Your task to perform on an android device: toggle wifi Image 0: 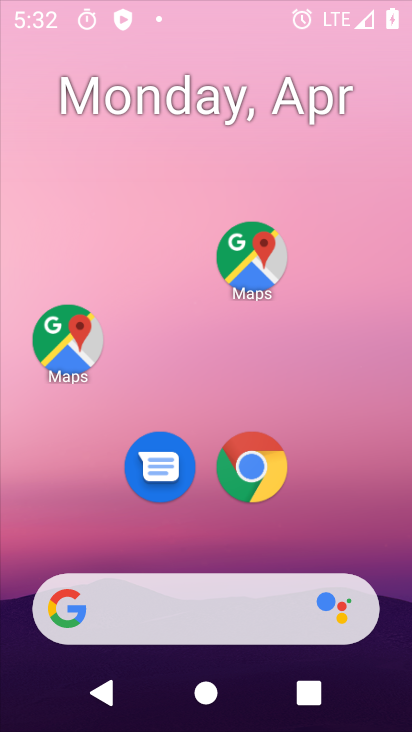
Step 0: drag from (309, 142) to (271, 6)
Your task to perform on an android device: toggle wifi Image 1: 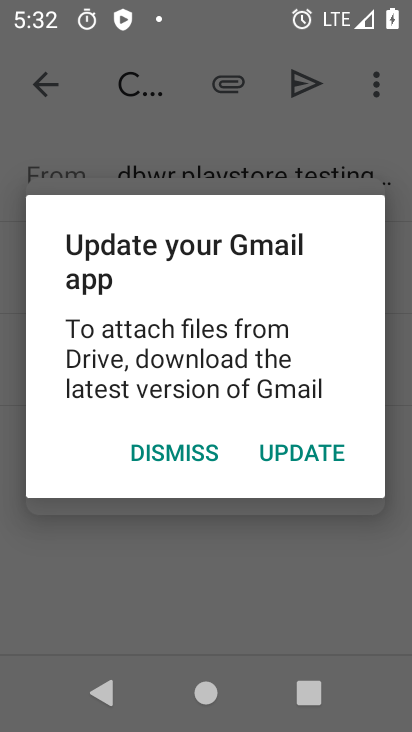
Step 1: press home button
Your task to perform on an android device: toggle wifi Image 2: 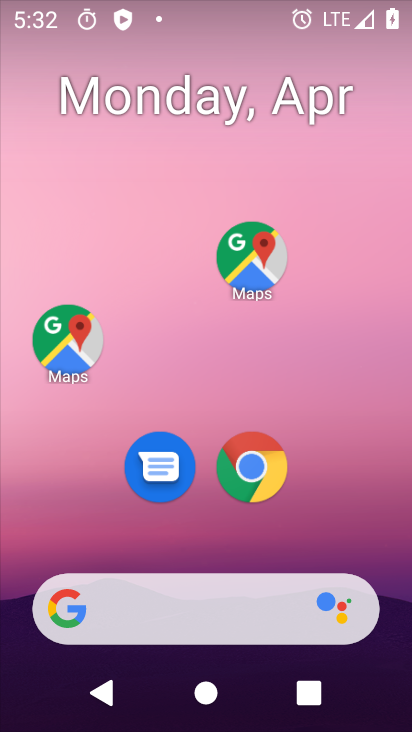
Step 2: drag from (321, 574) to (332, 15)
Your task to perform on an android device: toggle wifi Image 3: 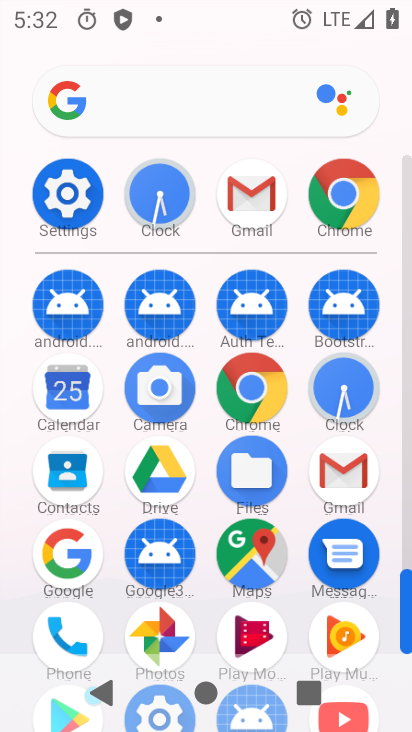
Step 3: click (69, 195)
Your task to perform on an android device: toggle wifi Image 4: 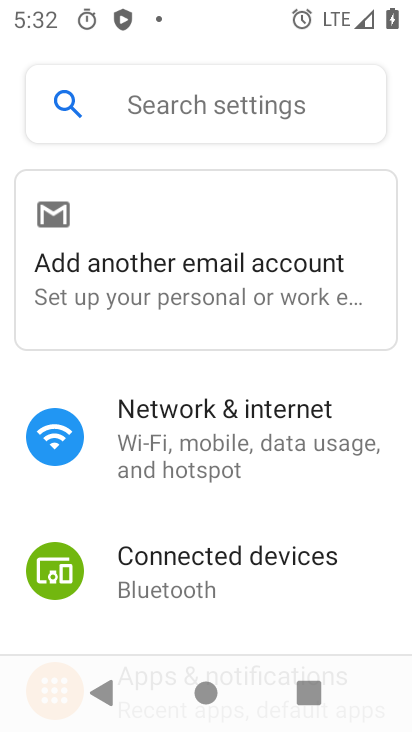
Step 4: drag from (295, 623) to (267, 402)
Your task to perform on an android device: toggle wifi Image 5: 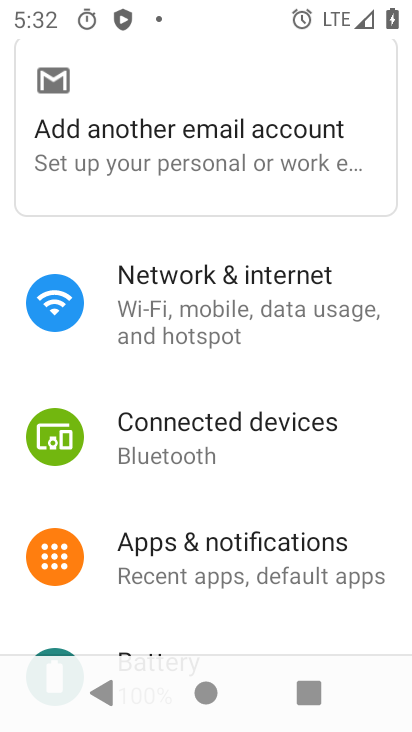
Step 5: click (263, 301)
Your task to perform on an android device: toggle wifi Image 6: 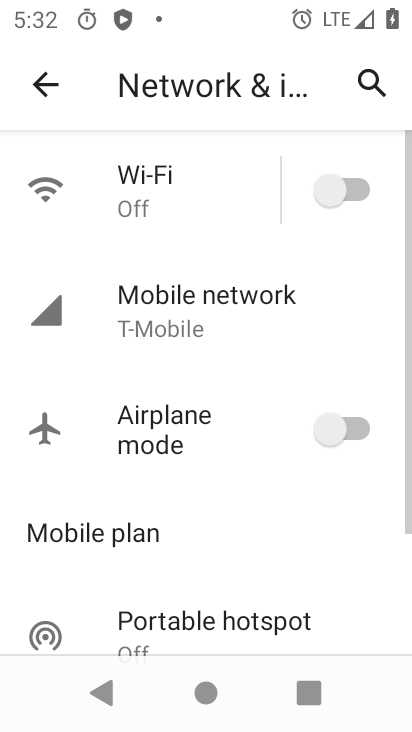
Step 6: click (341, 192)
Your task to perform on an android device: toggle wifi Image 7: 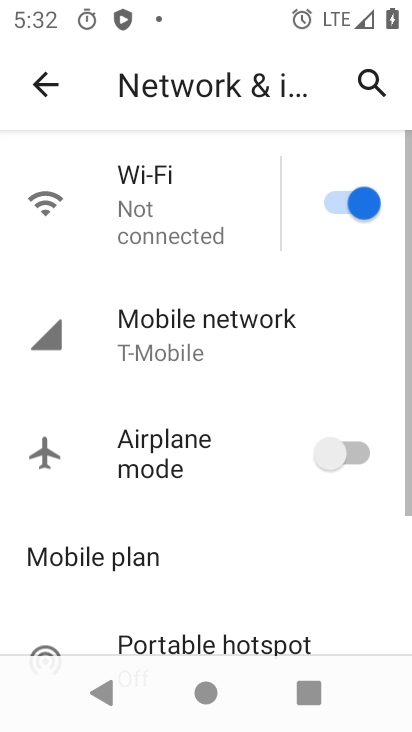
Step 7: task complete